Your task to perform on an android device: turn on translation in the chrome app Image 0: 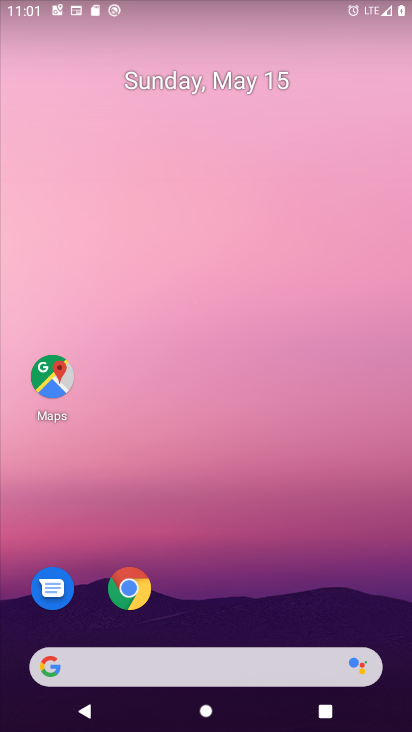
Step 0: click (125, 585)
Your task to perform on an android device: turn on translation in the chrome app Image 1: 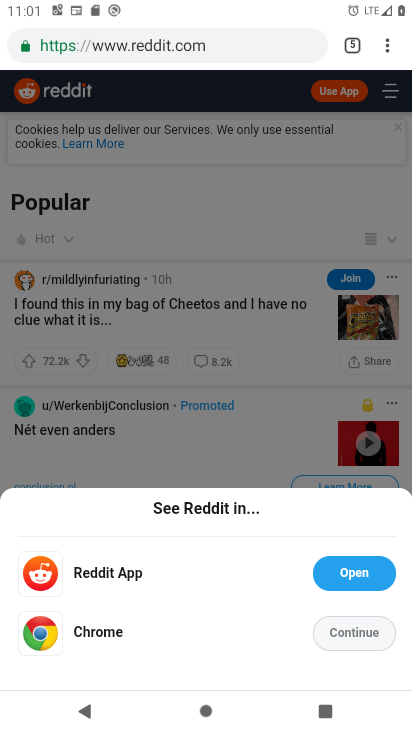
Step 1: press home button
Your task to perform on an android device: turn on translation in the chrome app Image 2: 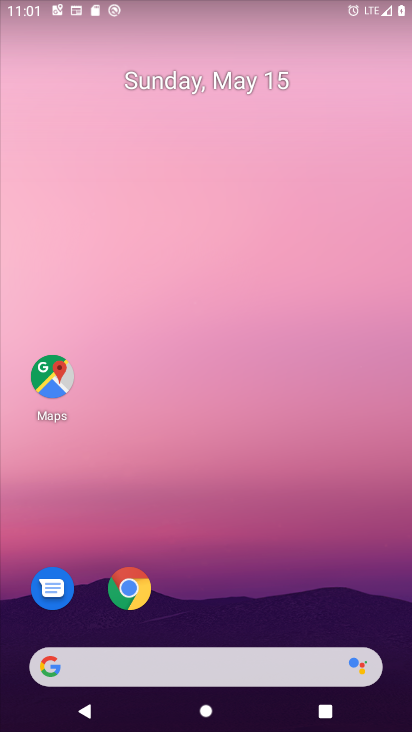
Step 2: click (138, 600)
Your task to perform on an android device: turn on translation in the chrome app Image 3: 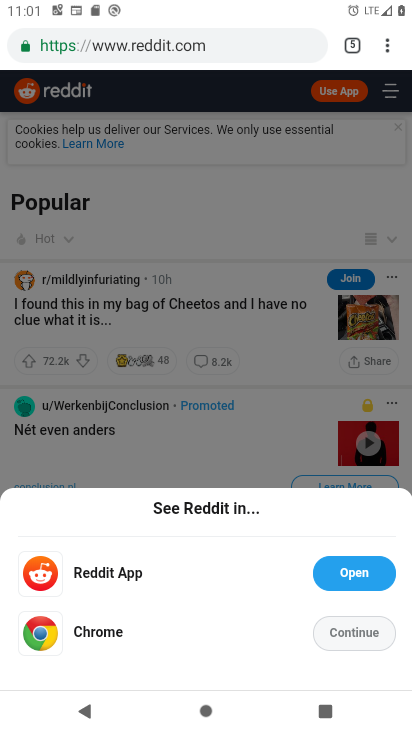
Step 3: click (389, 40)
Your task to perform on an android device: turn on translation in the chrome app Image 4: 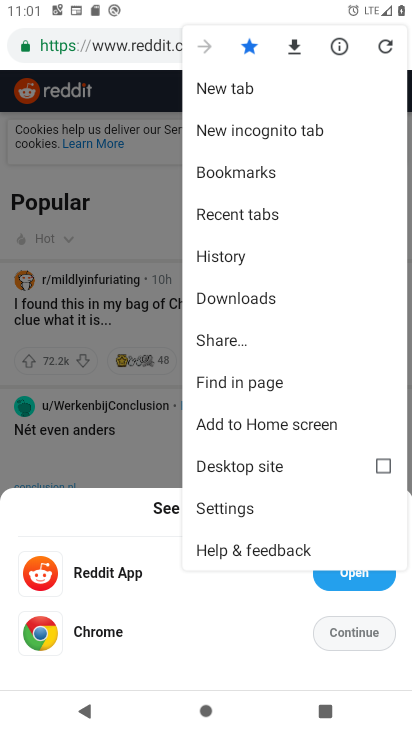
Step 4: click (232, 501)
Your task to perform on an android device: turn on translation in the chrome app Image 5: 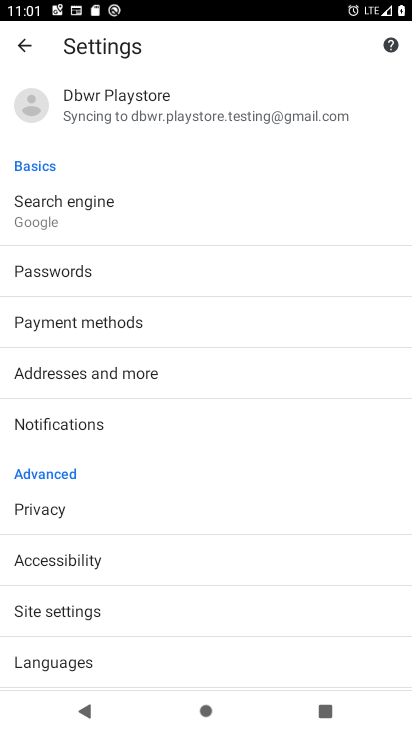
Step 5: click (44, 657)
Your task to perform on an android device: turn on translation in the chrome app Image 6: 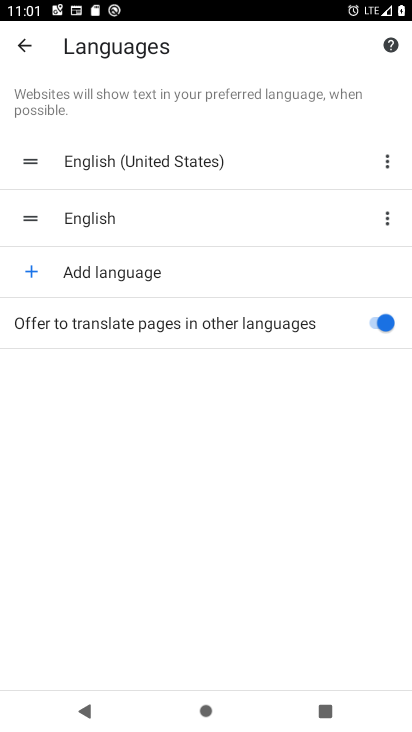
Step 6: task complete